Your task to perform on an android device: uninstall "McDonald's" Image 0: 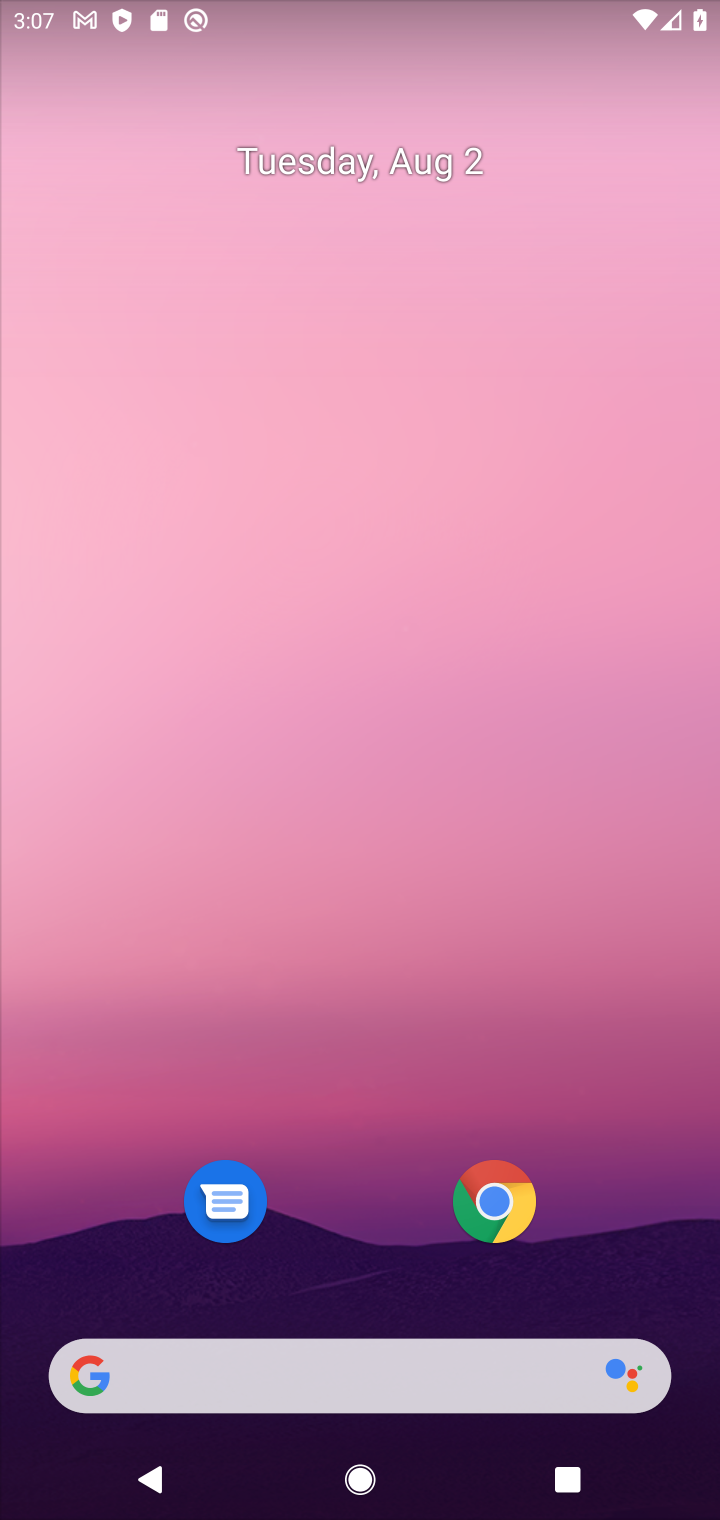
Step 0: drag from (348, 1292) to (353, 44)
Your task to perform on an android device: uninstall "McDonald's" Image 1: 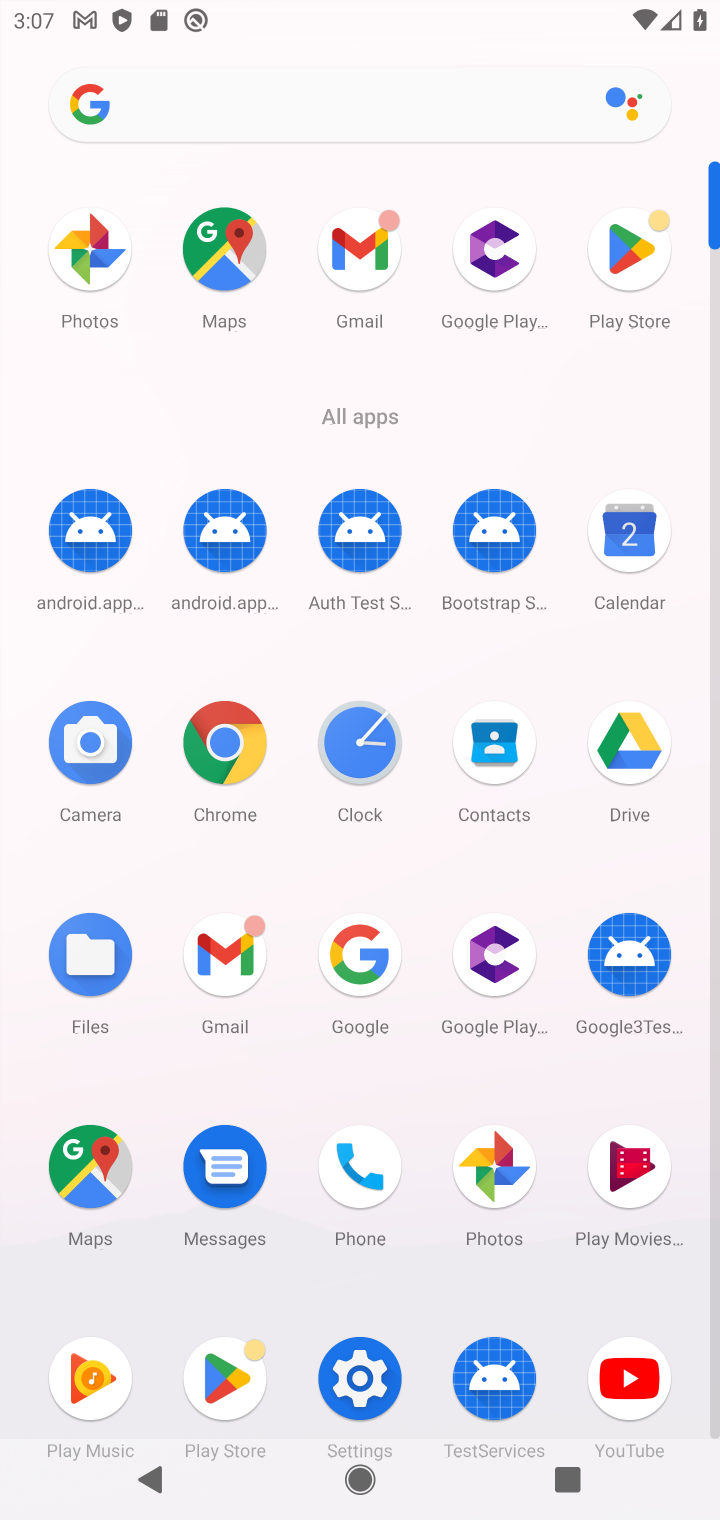
Step 1: click (624, 251)
Your task to perform on an android device: uninstall "McDonald's" Image 2: 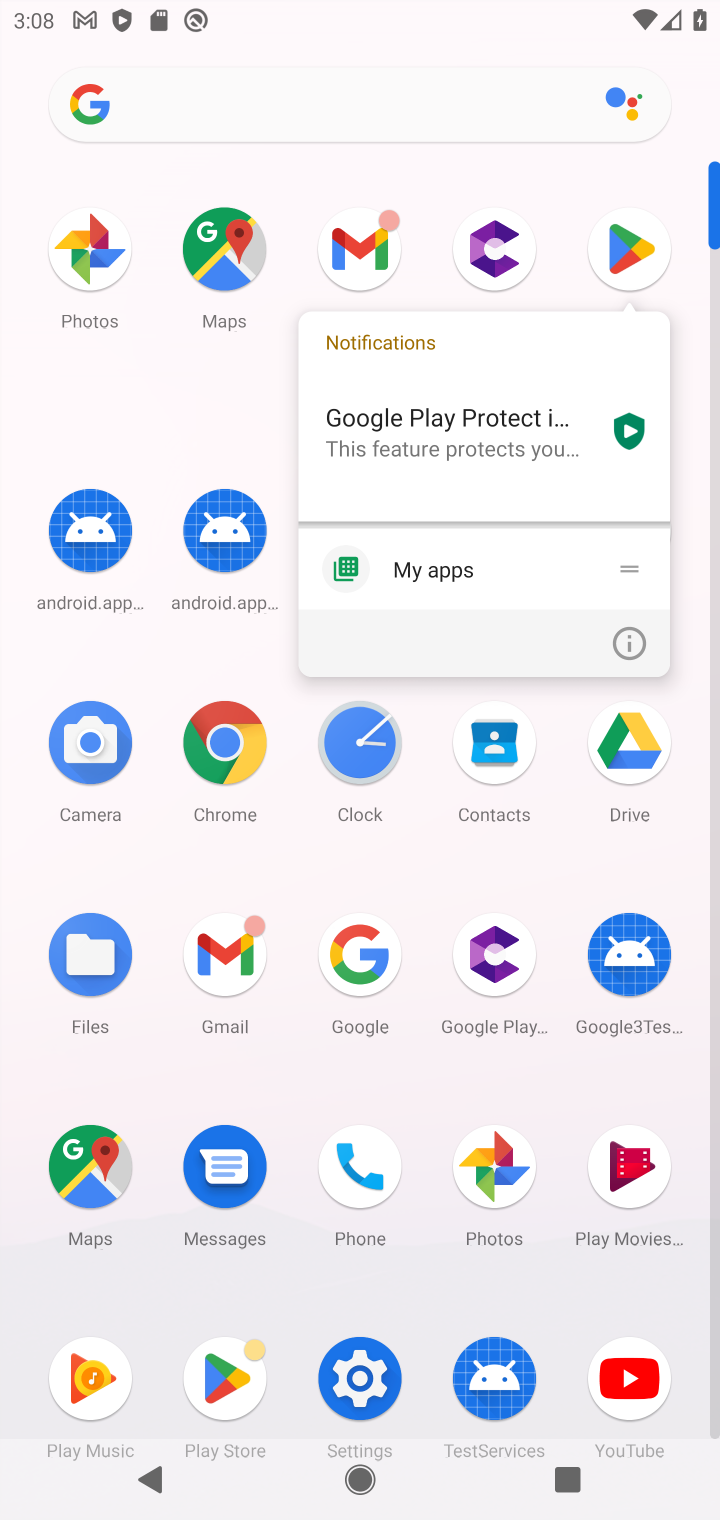
Step 2: click (628, 239)
Your task to perform on an android device: uninstall "McDonald's" Image 3: 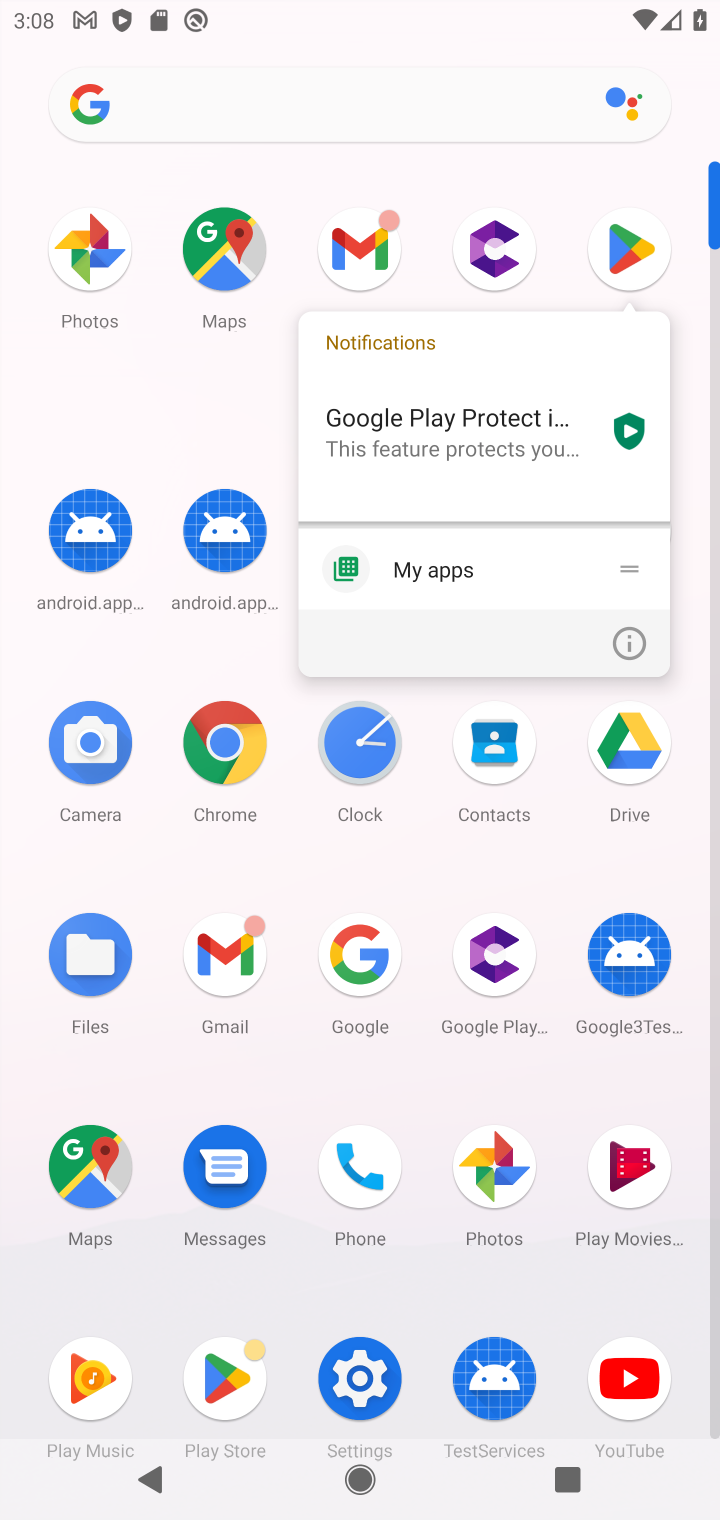
Step 3: click (628, 242)
Your task to perform on an android device: uninstall "McDonald's" Image 4: 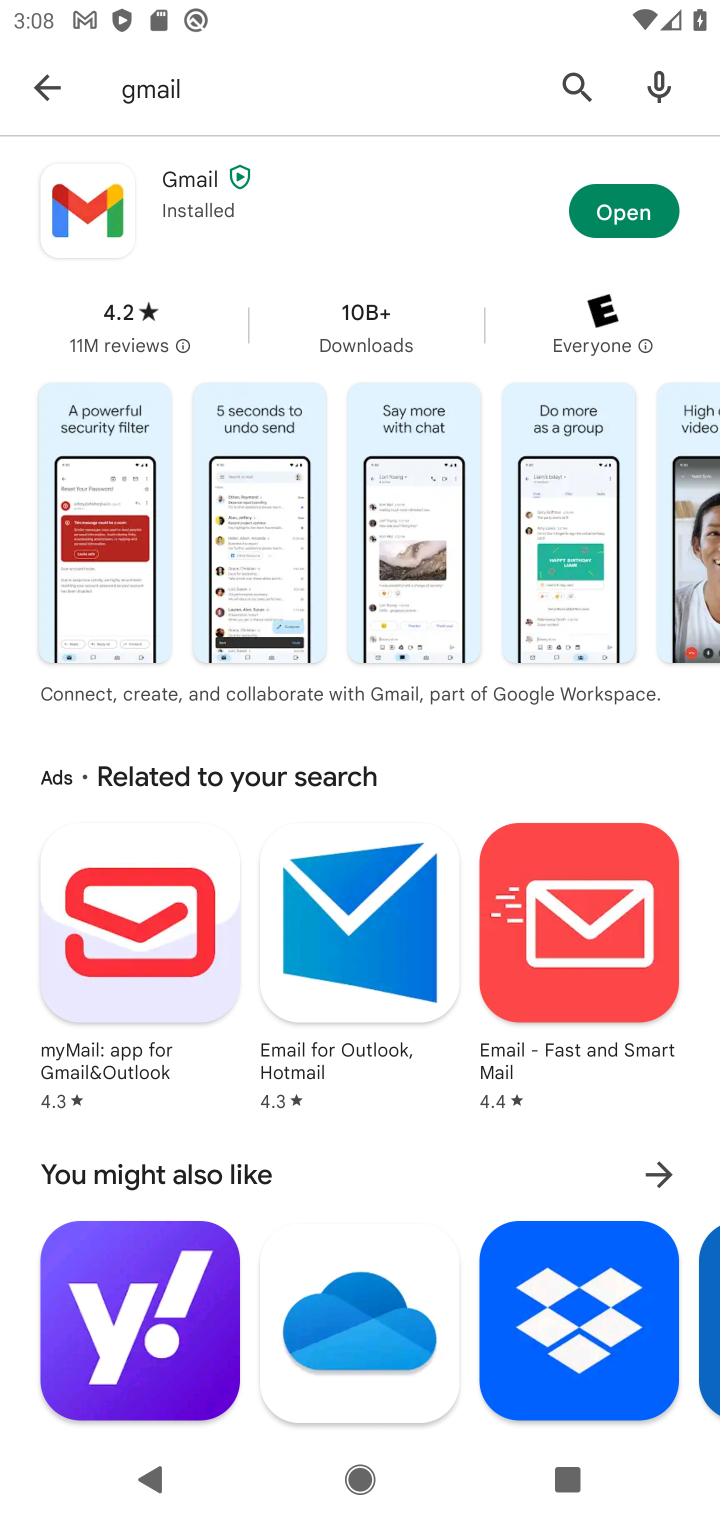
Step 4: click (570, 92)
Your task to perform on an android device: uninstall "McDonald's" Image 5: 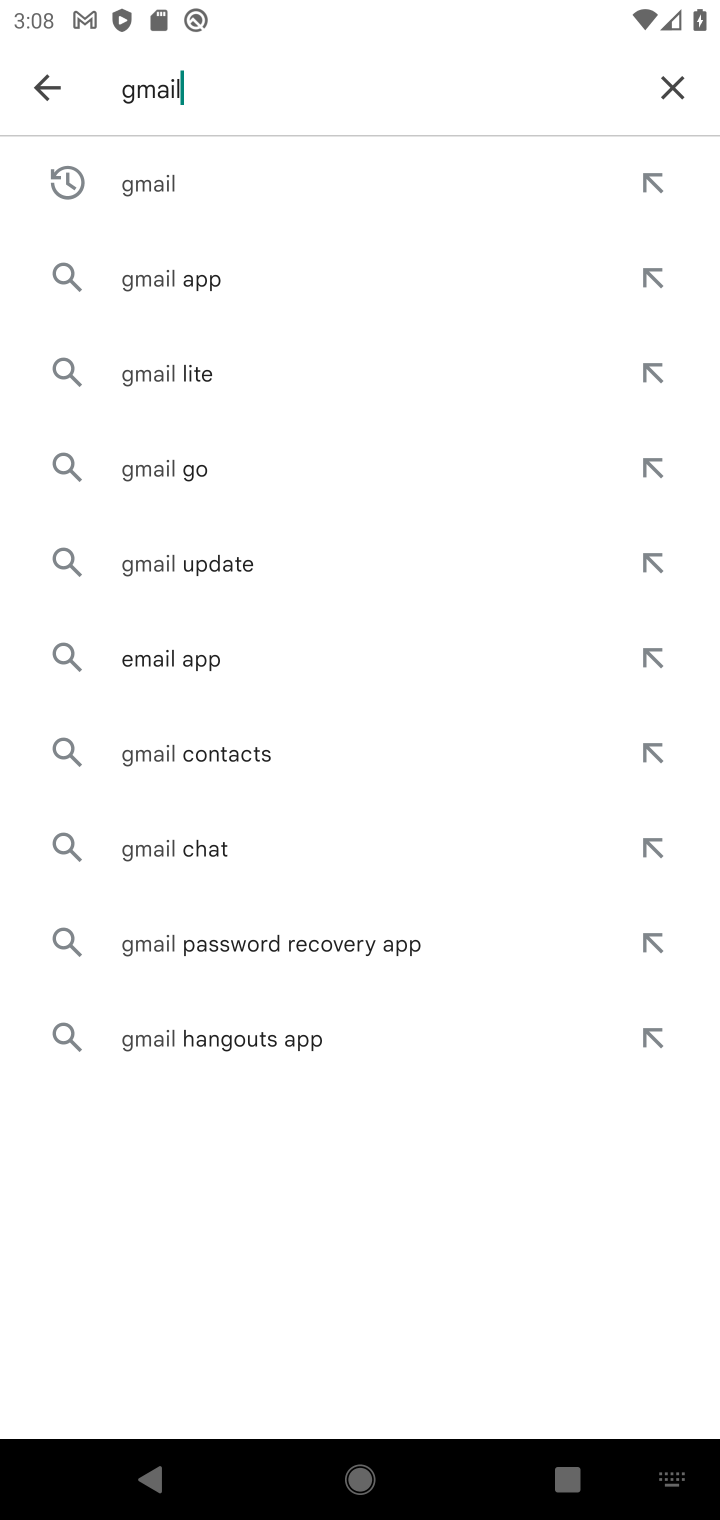
Step 5: click (690, 85)
Your task to perform on an android device: uninstall "McDonald's" Image 6: 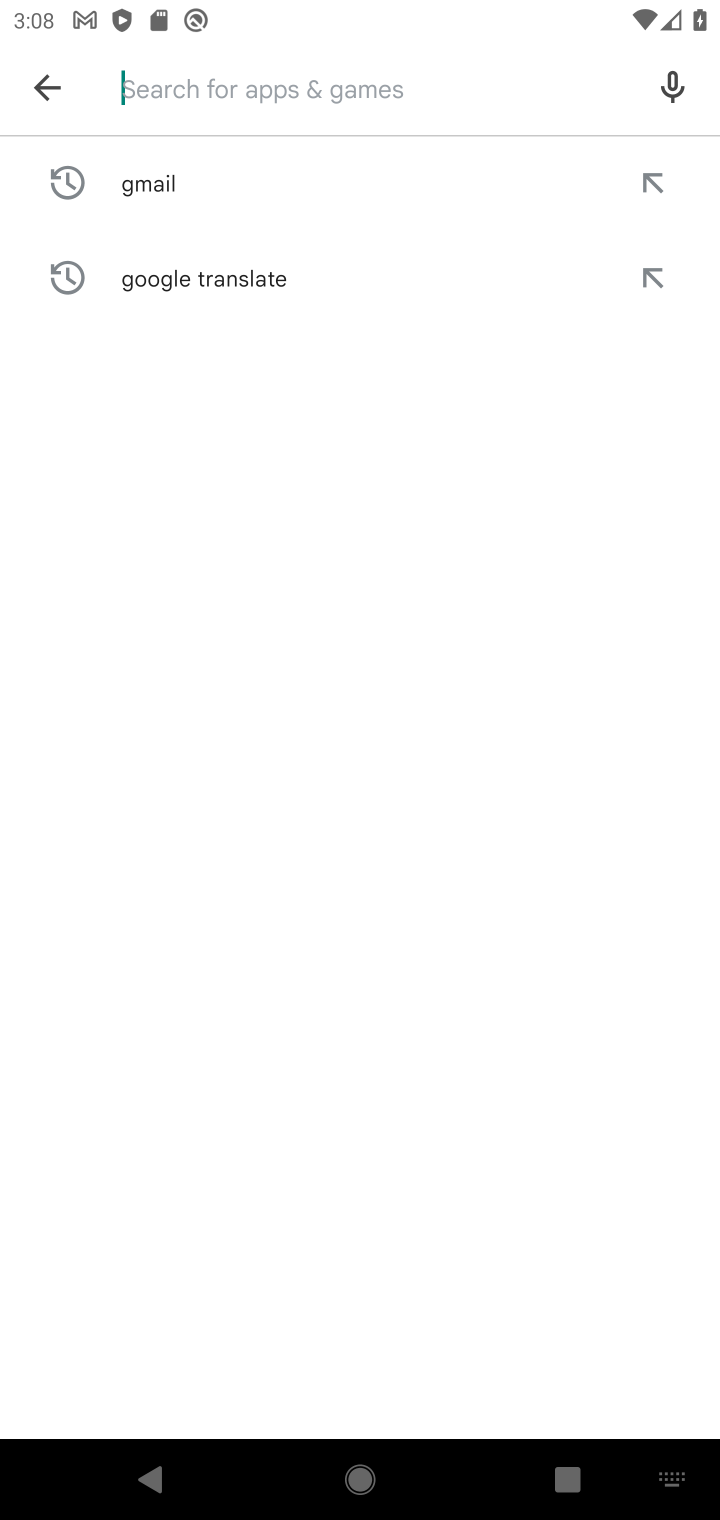
Step 6: type "McDonald's"
Your task to perform on an android device: uninstall "McDonald's" Image 7: 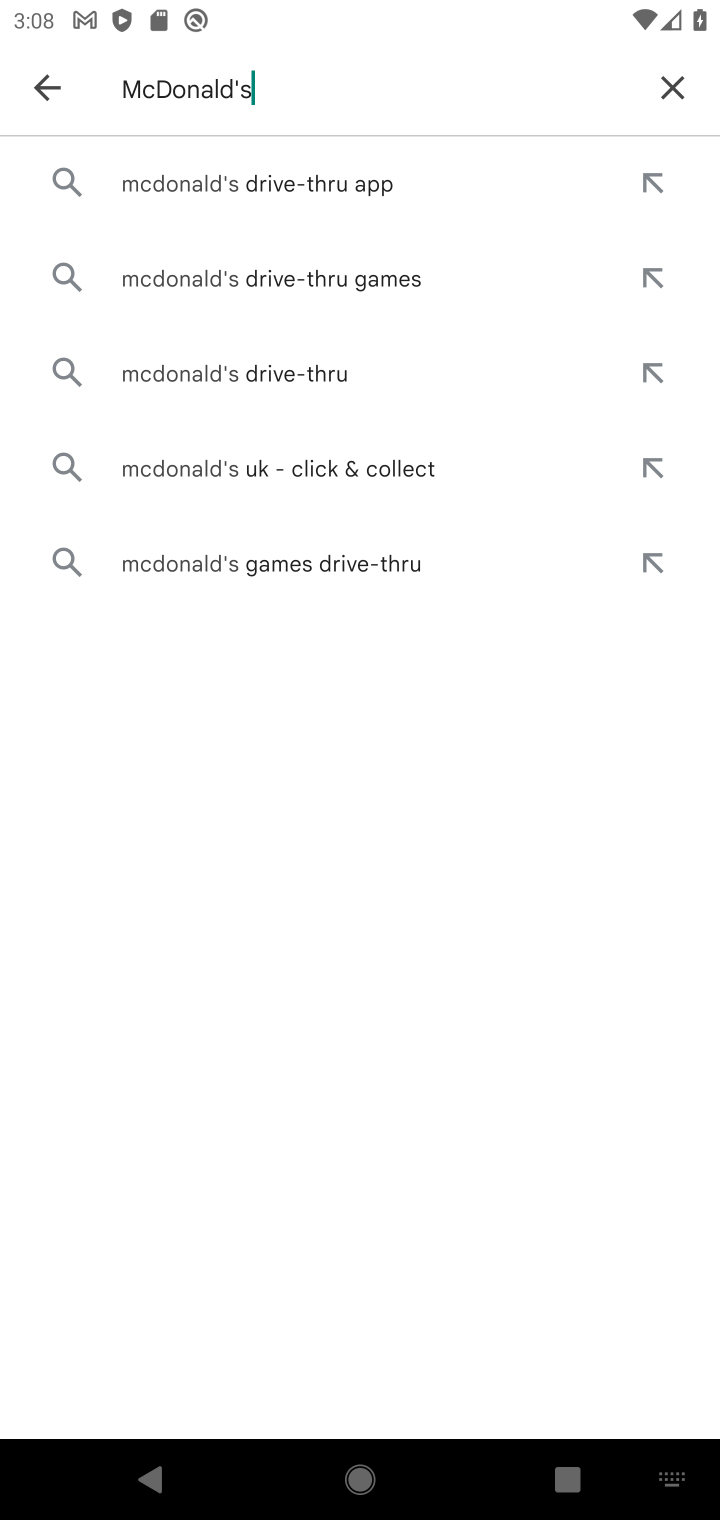
Step 7: click (231, 169)
Your task to perform on an android device: uninstall "McDonald's" Image 8: 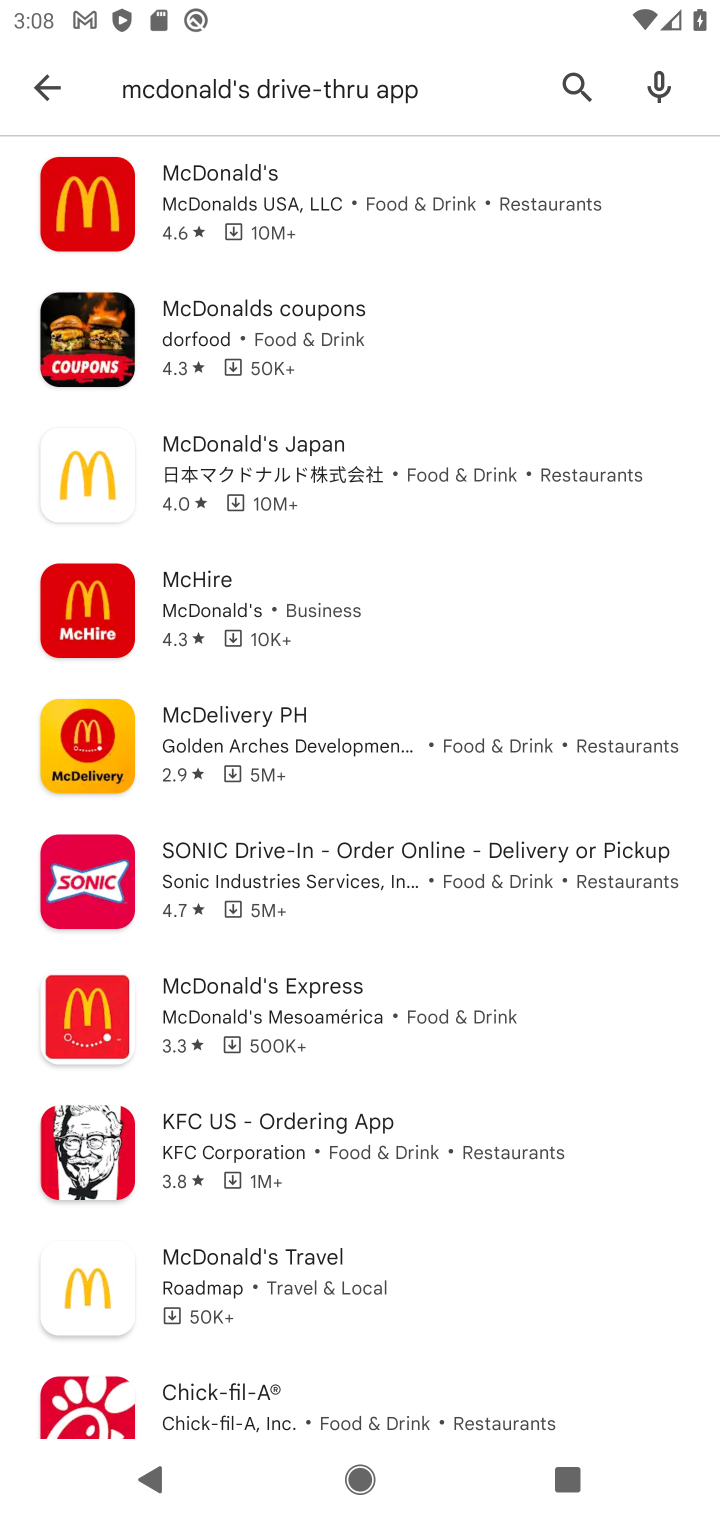
Step 8: click (297, 212)
Your task to perform on an android device: uninstall "McDonald's" Image 9: 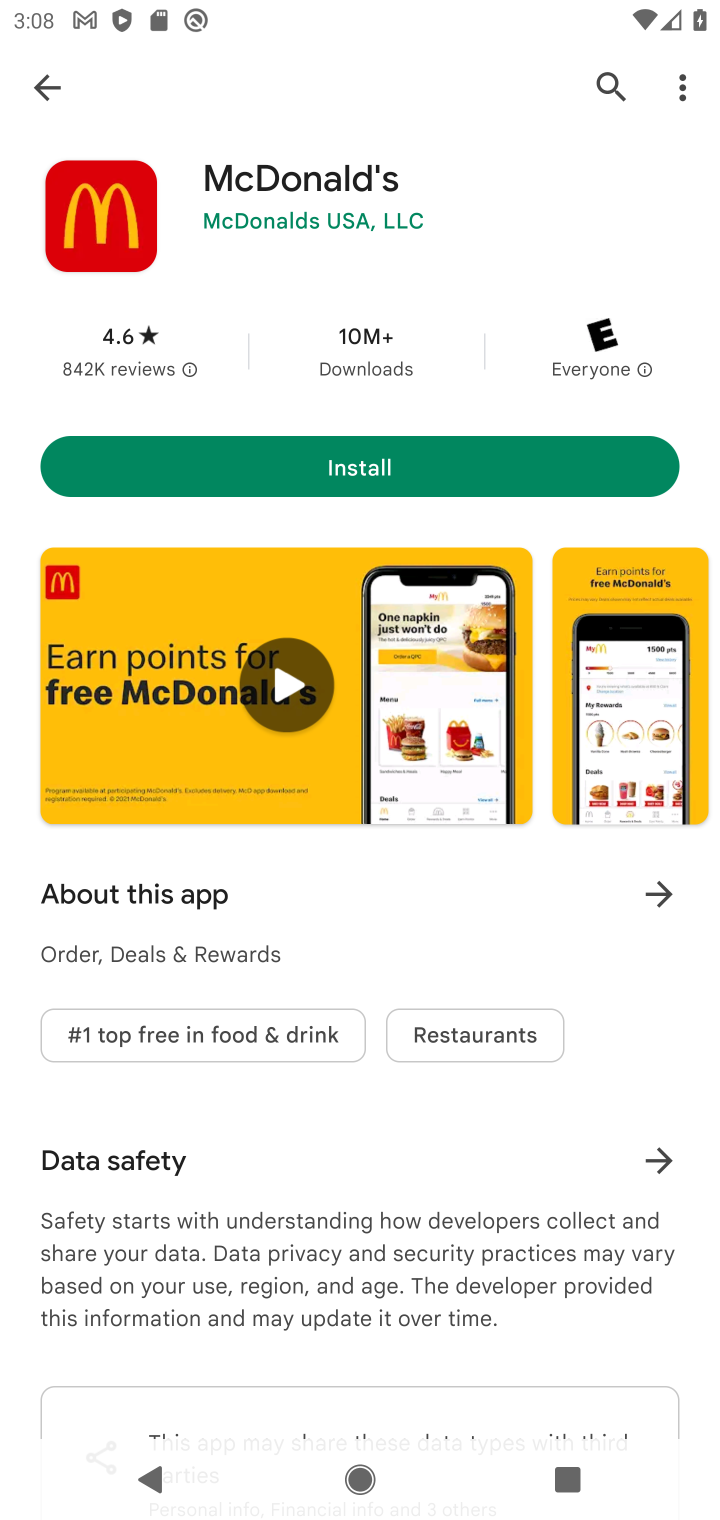
Step 9: task complete